Your task to perform on an android device: open app "Move to iOS" (install if not already installed), go to login, and select forgot password Image 0: 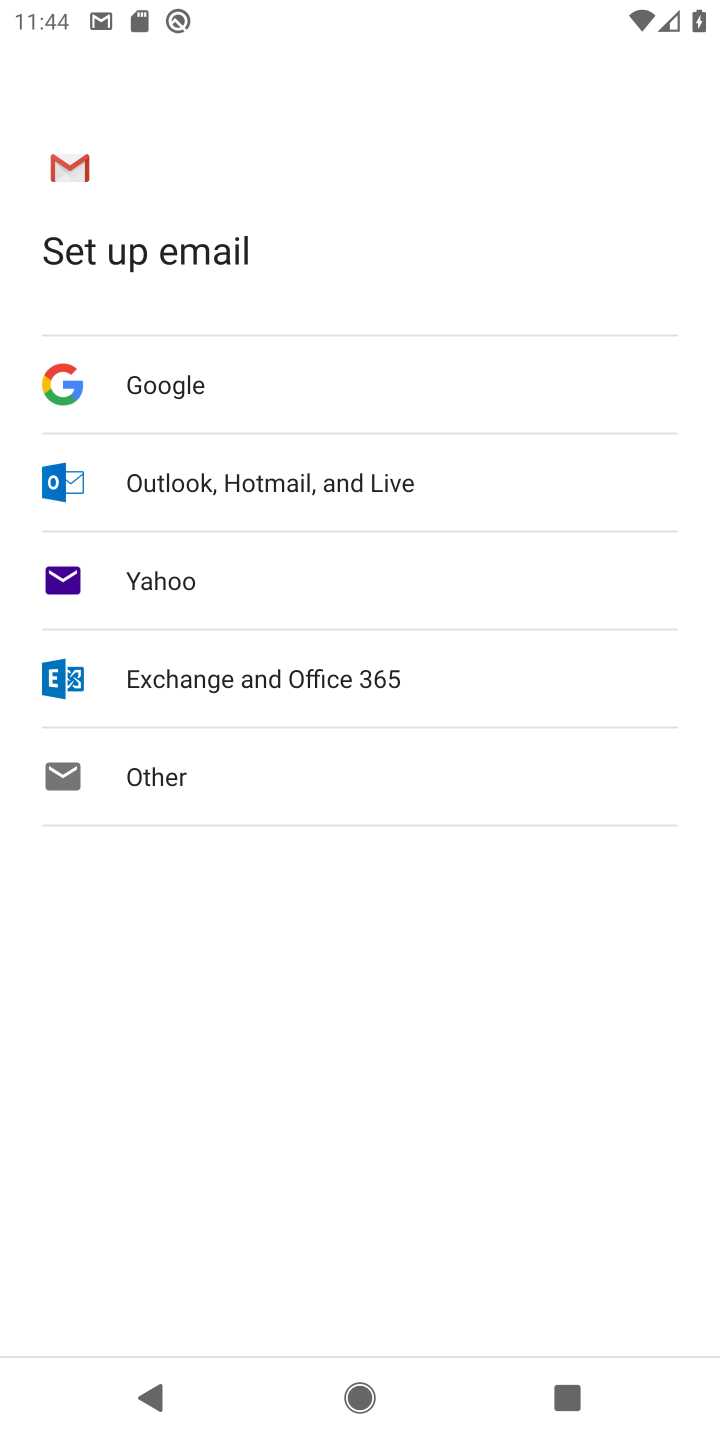
Step 0: press home button
Your task to perform on an android device: open app "Move to iOS" (install if not already installed), go to login, and select forgot password Image 1: 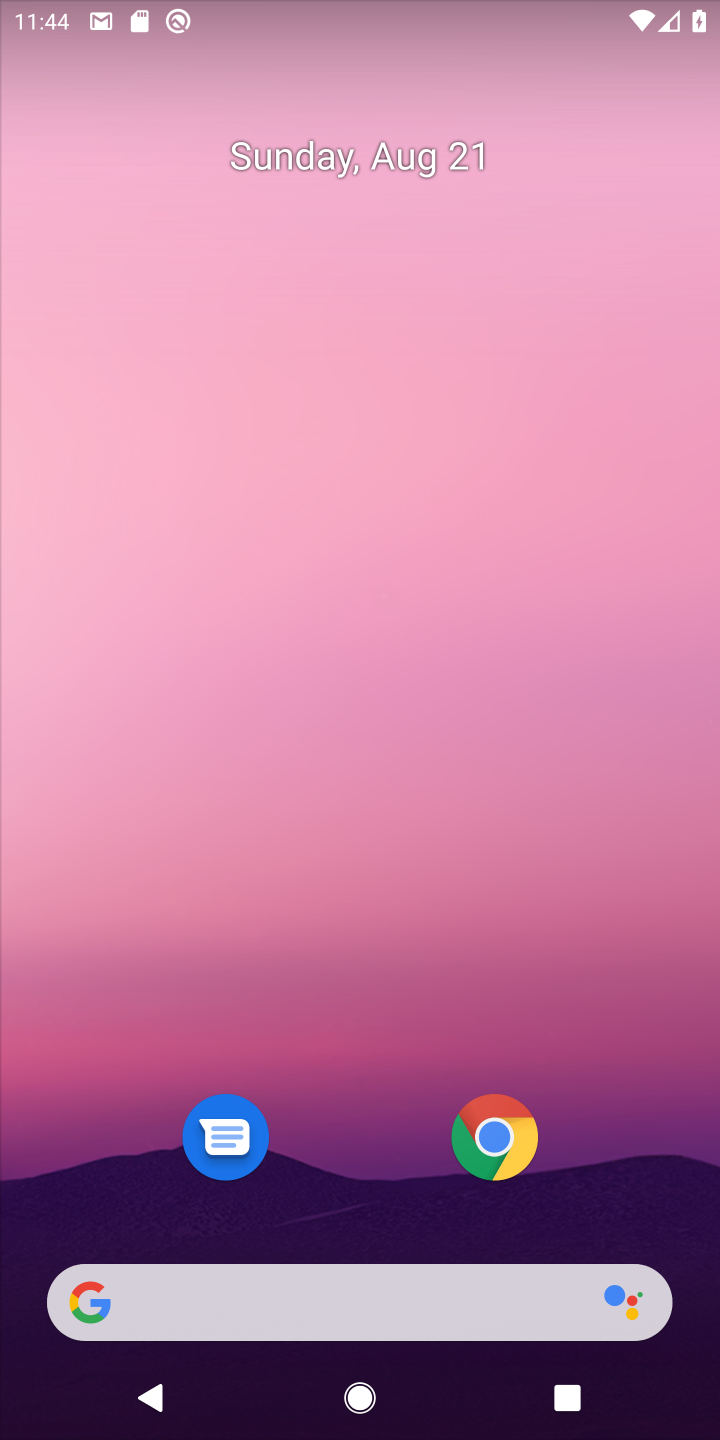
Step 1: drag from (659, 1221) to (593, 120)
Your task to perform on an android device: open app "Move to iOS" (install if not already installed), go to login, and select forgot password Image 2: 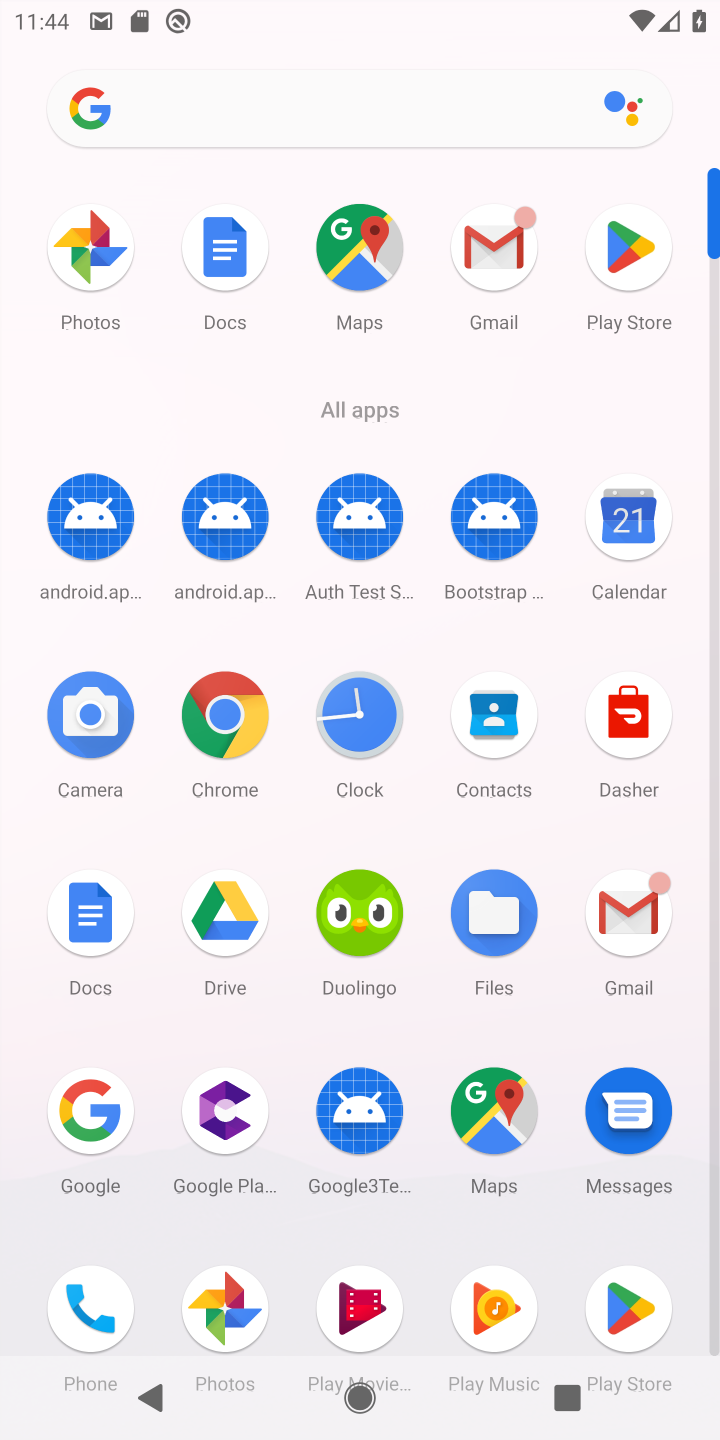
Step 2: click (632, 1308)
Your task to perform on an android device: open app "Move to iOS" (install if not already installed), go to login, and select forgot password Image 3: 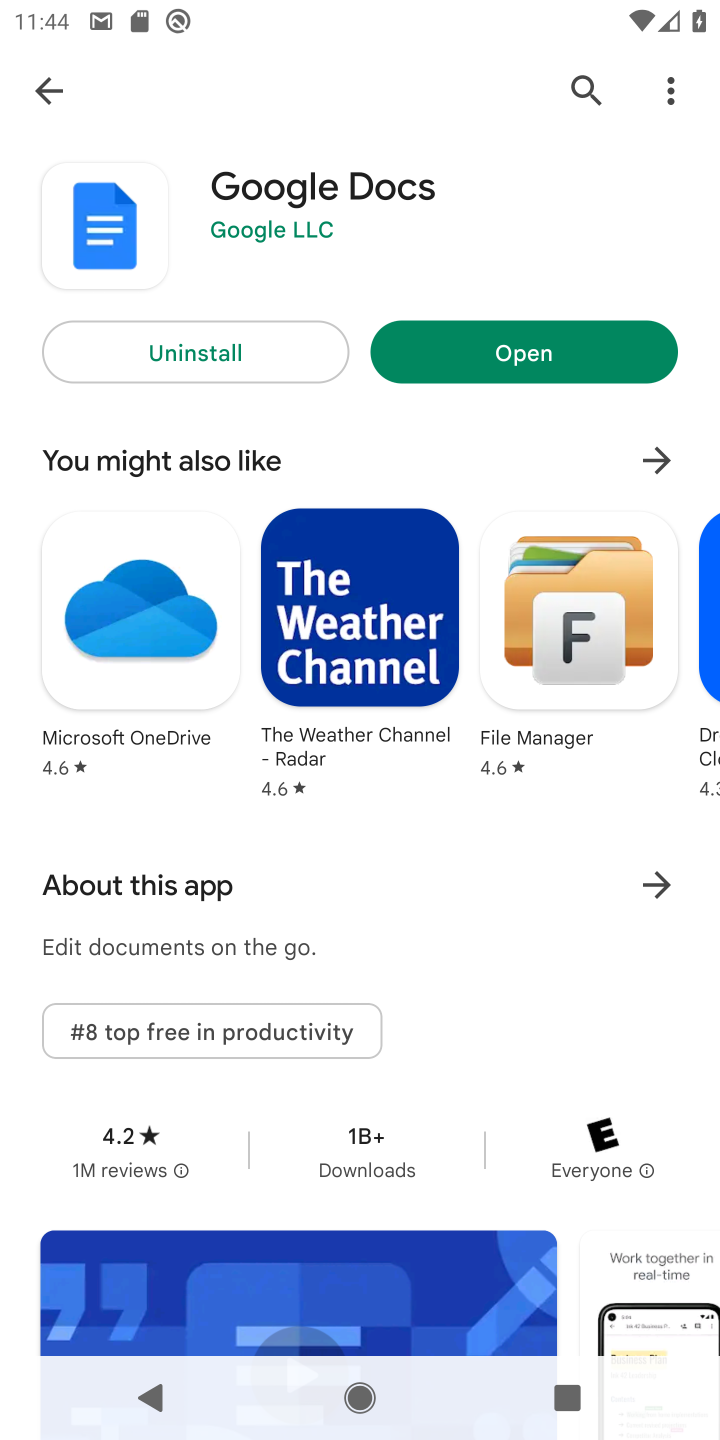
Step 3: click (581, 88)
Your task to perform on an android device: open app "Move to iOS" (install if not already installed), go to login, and select forgot password Image 4: 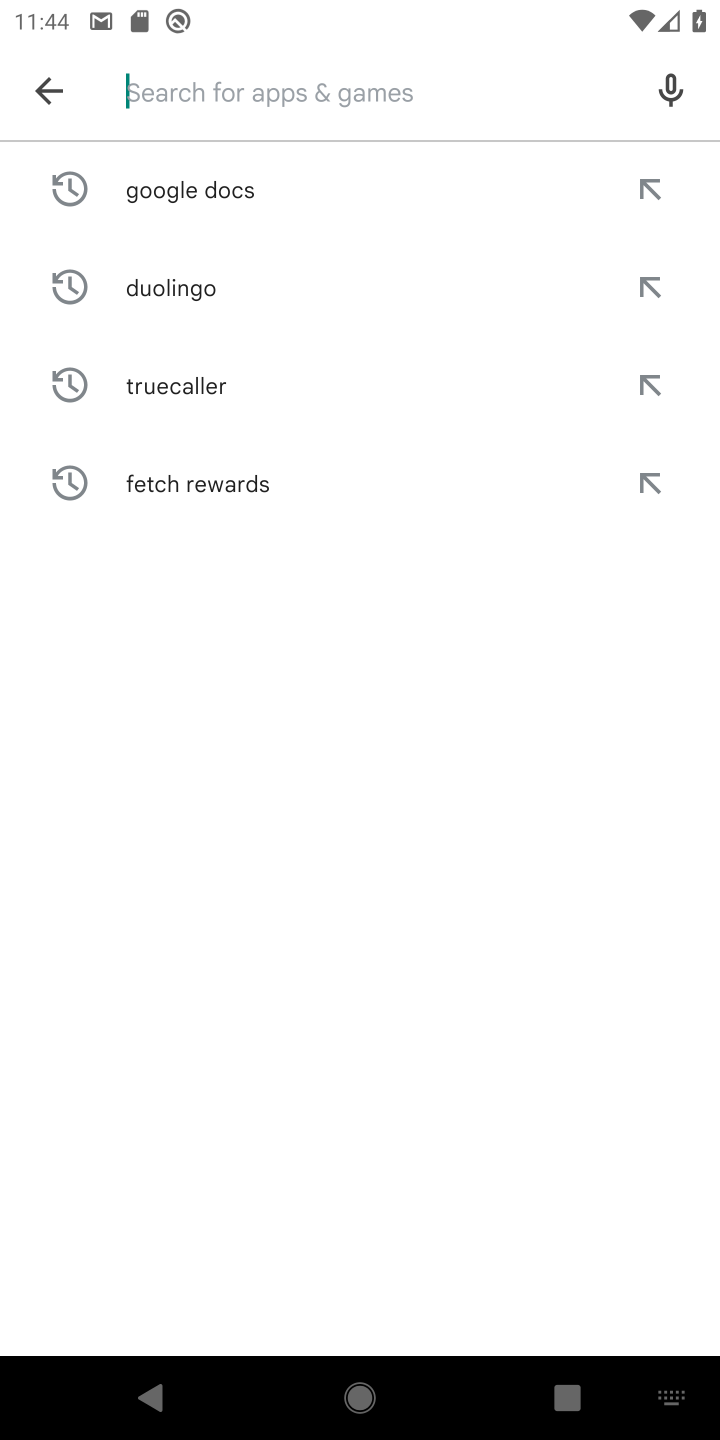
Step 4: type "Move to iOS"
Your task to perform on an android device: open app "Move to iOS" (install if not already installed), go to login, and select forgot password Image 5: 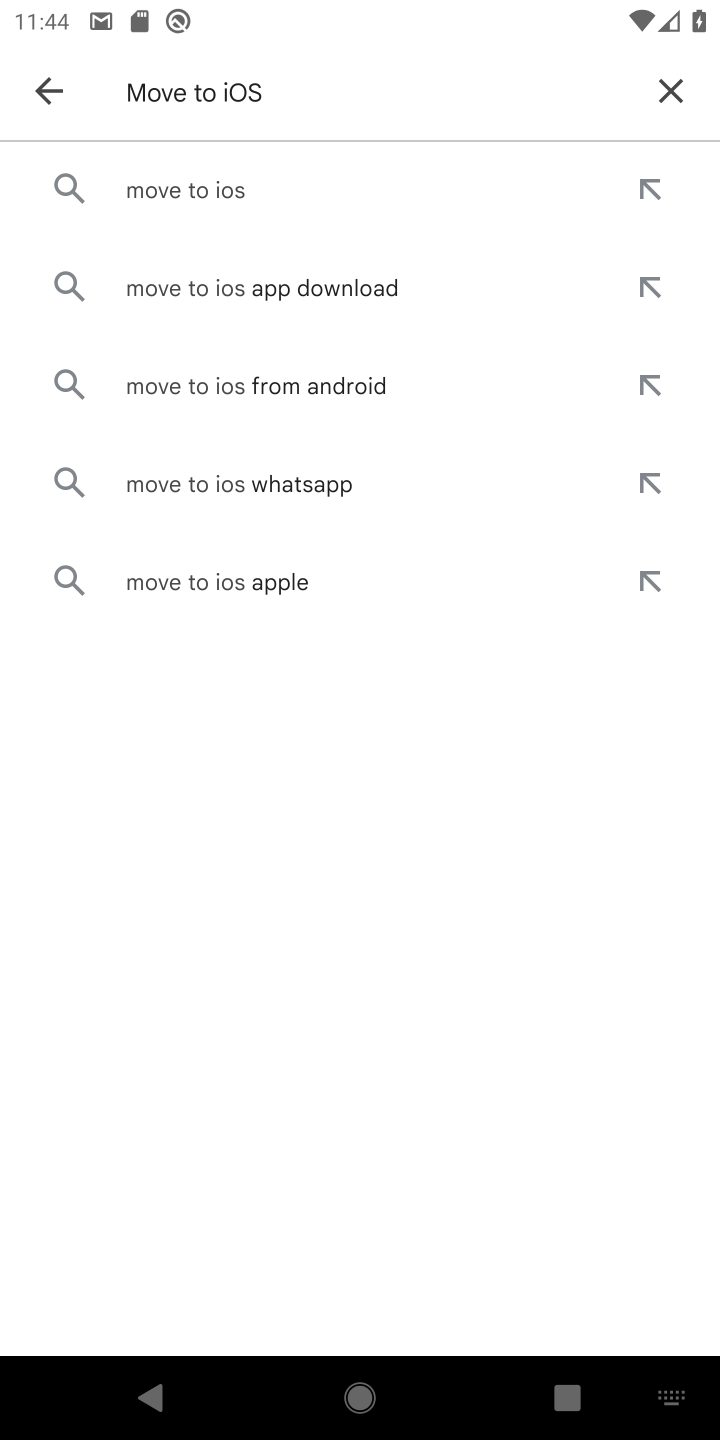
Step 5: click (166, 193)
Your task to perform on an android device: open app "Move to iOS" (install if not already installed), go to login, and select forgot password Image 6: 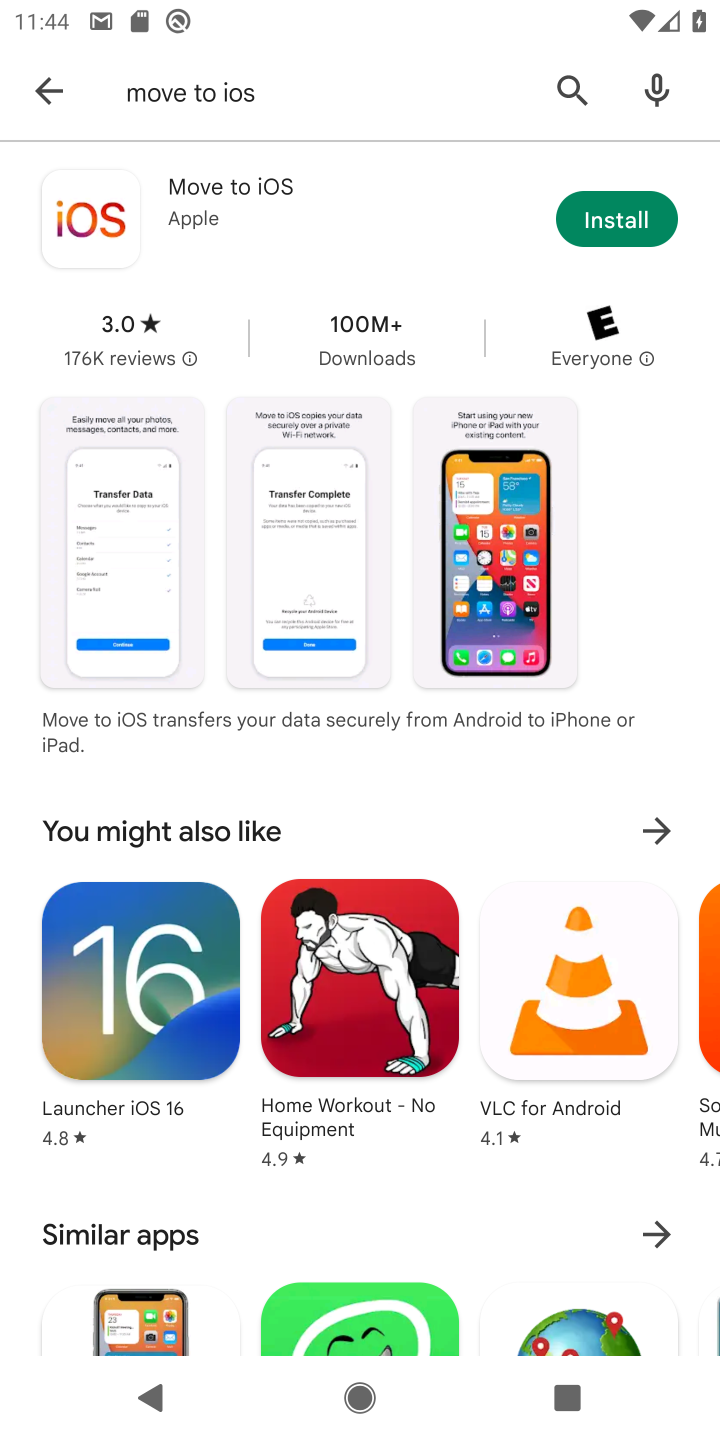
Step 6: click (622, 217)
Your task to perform on an android device: open app "Move to iOS" (install if not already installed), go to login, and select forgot password Image 7: 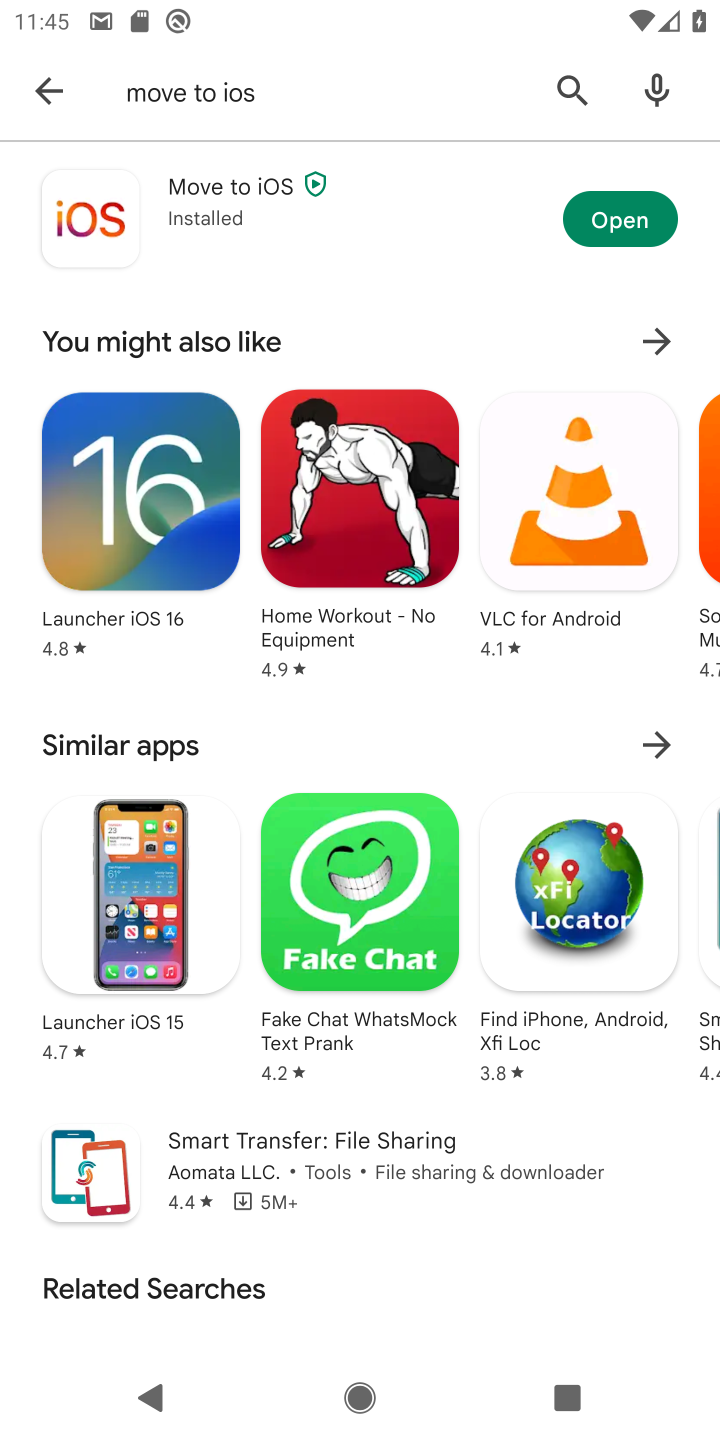
Step 7: click (201, 201)
Your task to perform on an android device: open app "Move to iOS" (install if not already installed), go to login, and select forgot password Image 8: 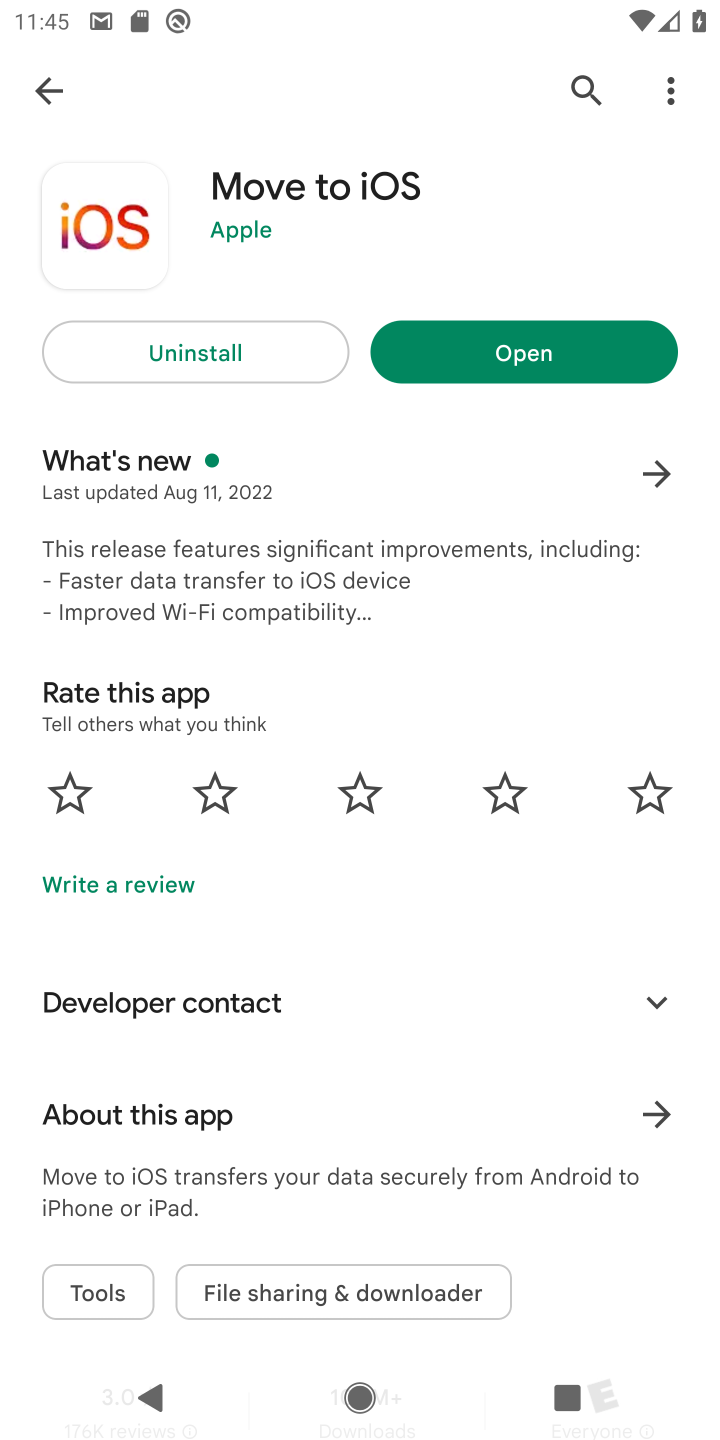
Step 8: click (518, 354)
Your task to perform on an android device: open app "Move to iOS" (install if not already installed), go to login, and select forgot password Image 9: 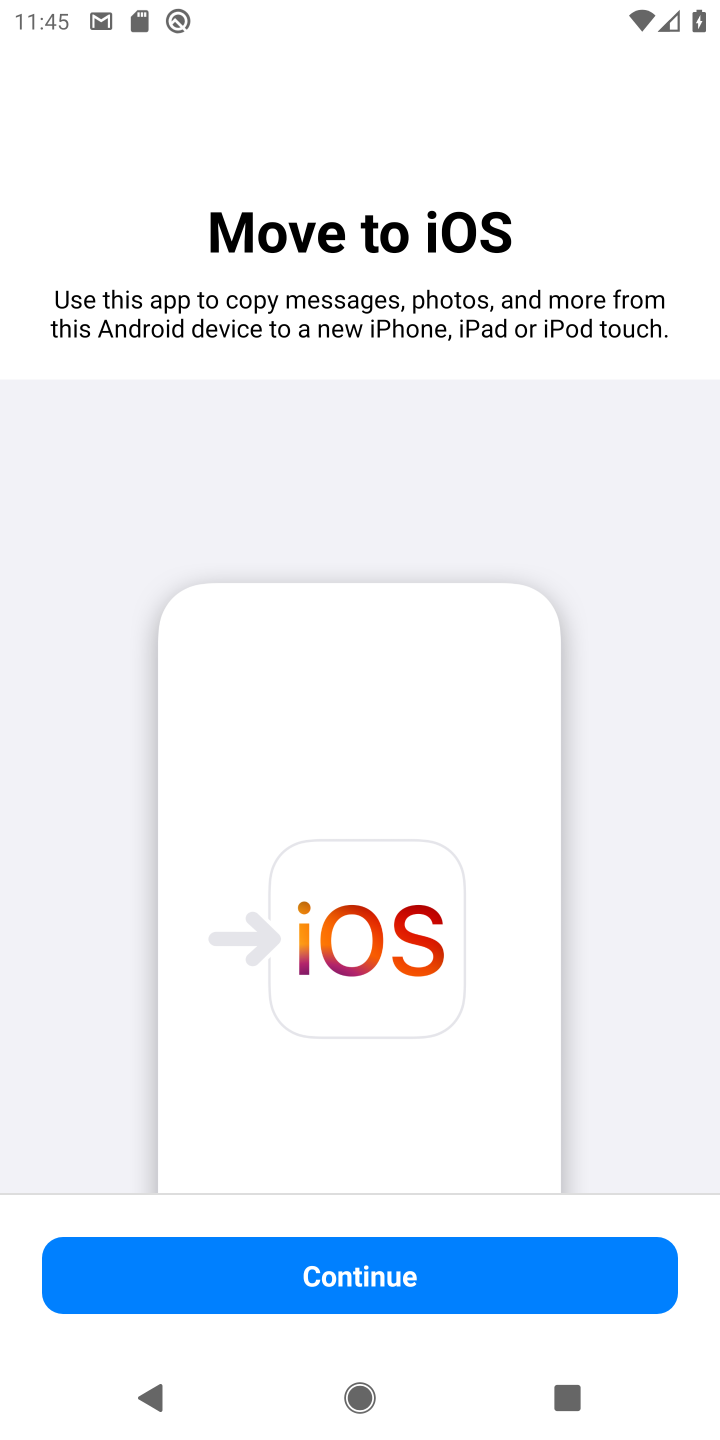
Step 9: click (351, 1264)
Your task to perform on an android device: open app "Move to iOS" (install if not already installed), go to login, and select forgot password Image 10: 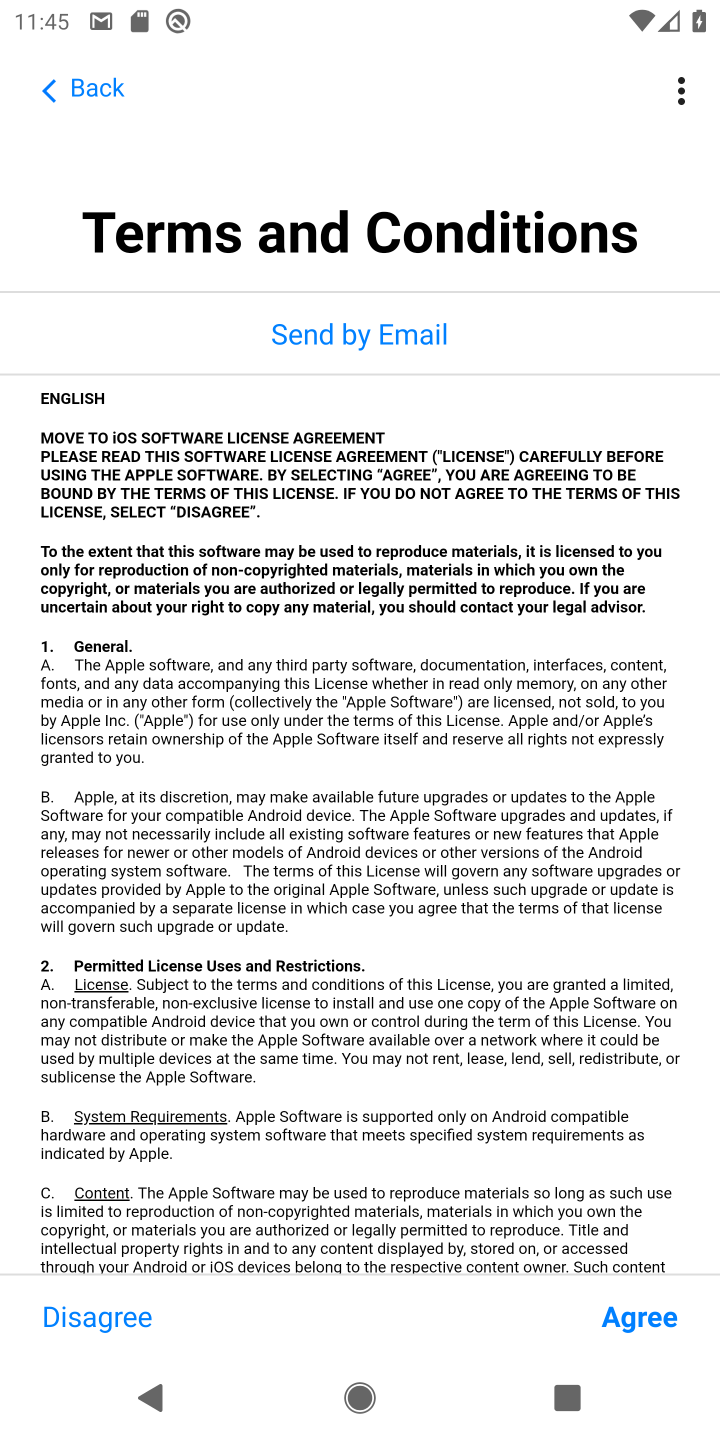
Step 10: click (658, 1316)
Your task to perform on an android device: open app "Move to iOS" (install if not already installed), go to login, and select forgot password Image 11: 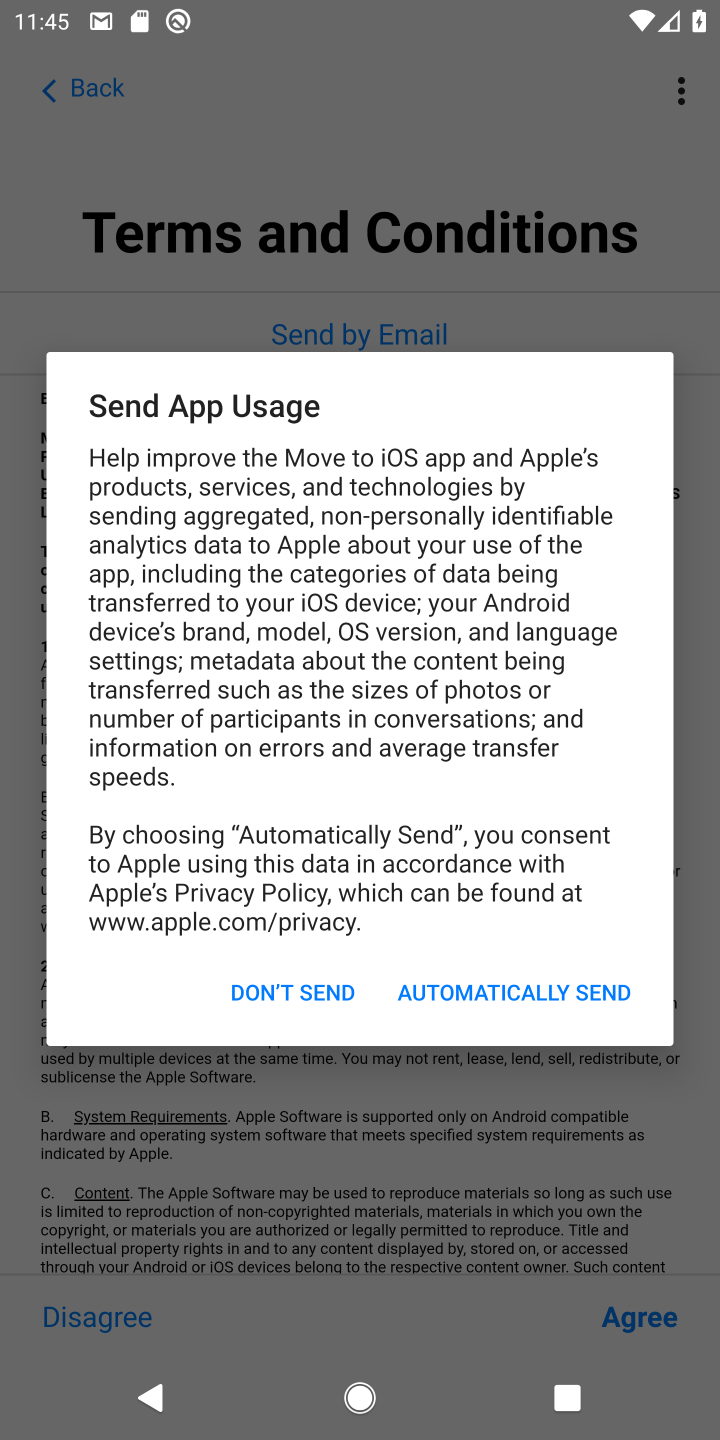
Step 11: click (276, 986)
Your task to perform on an android device: open app "Move to iOS" (install if not already installed), go to login, and select forgot password Image 12: 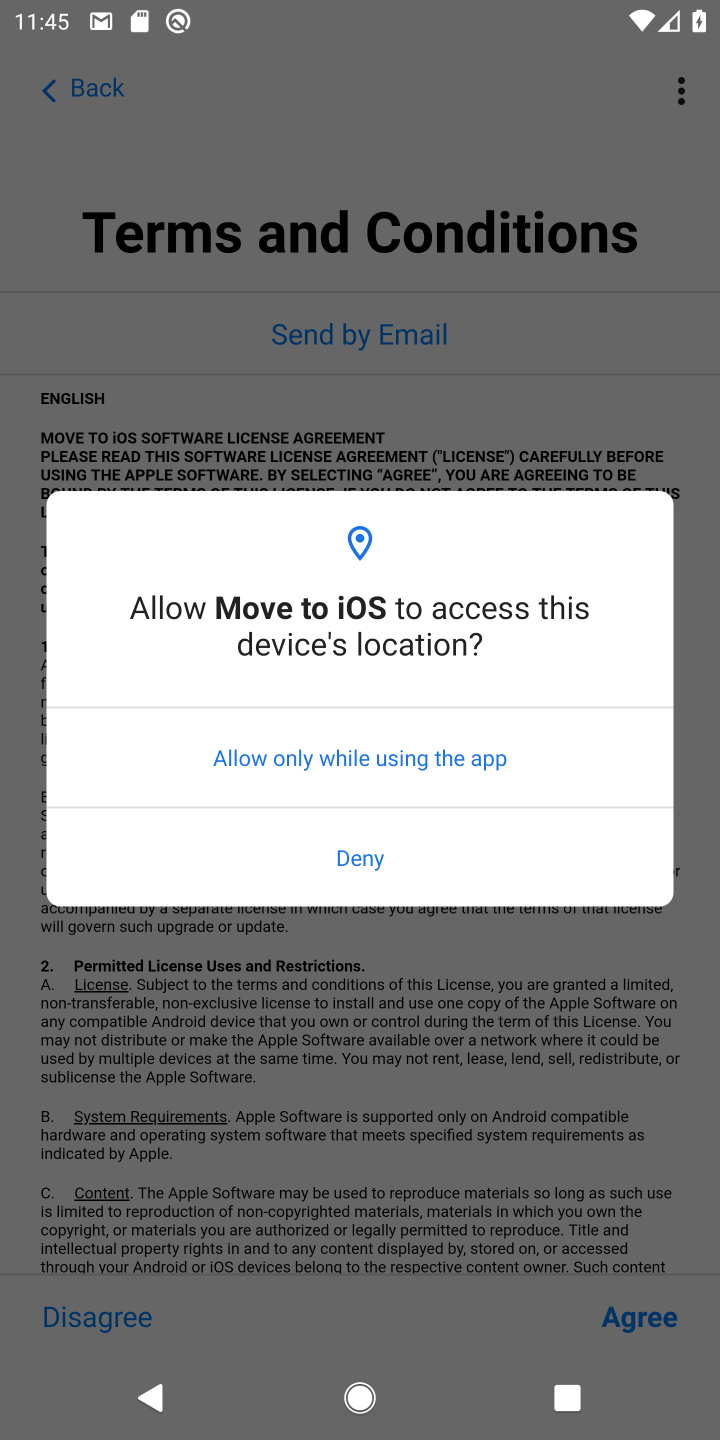
Step 12: click (339, 746)
Your task to perform on an android device: open app "Move to iOS" (install if not already installed), go to login, and select forgot password Image 13: 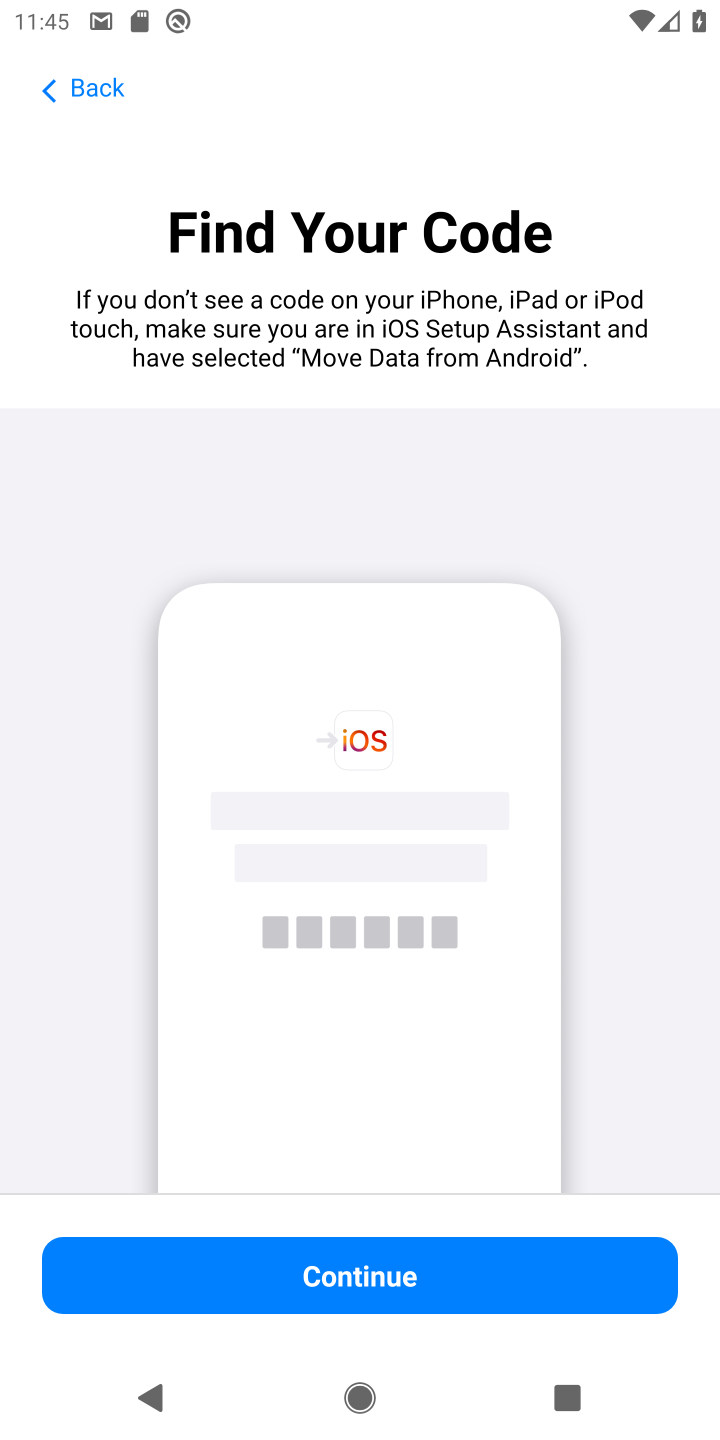
Step 13: click (359, 1281)
Your task to perform on an android device: open app "Move to iOS" (install if not already installed), go to login, and select forgot password Image 14: 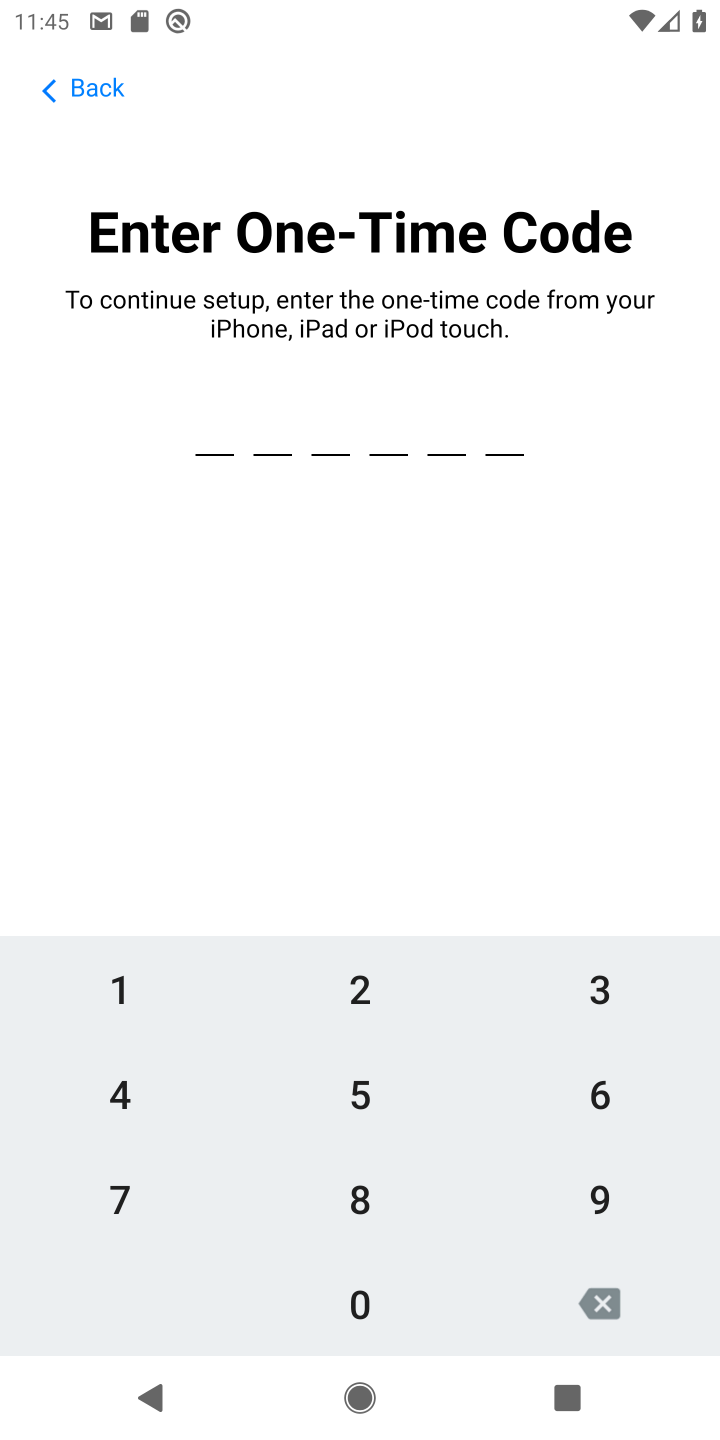
Step 14: task complete